Your task to perform on an android device: turn on bluetooth scan Image 0: 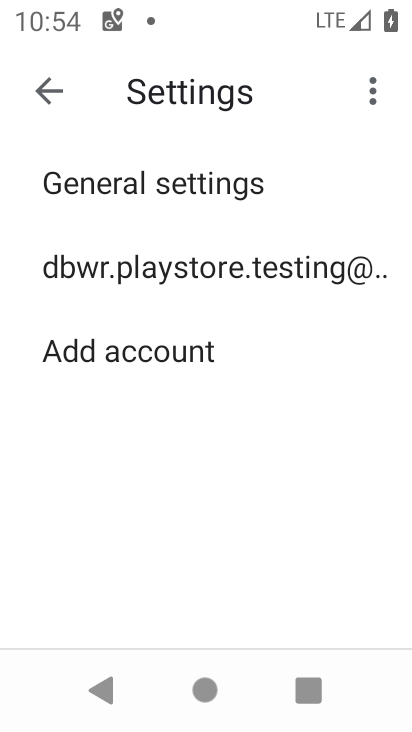
Step 0: press home button
Your task to perform on an android device: turn on bluetooth scan Image 1: 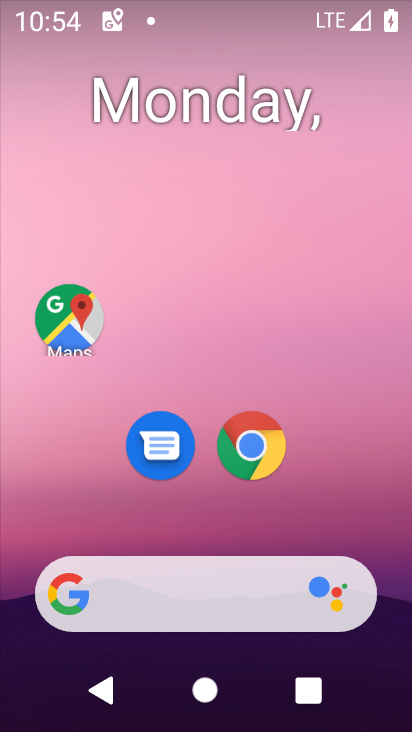
Step 1: drag from (241, 704) to (141, 20)
Your task to perform on an android device: turn on bluetooth scan Image 2: 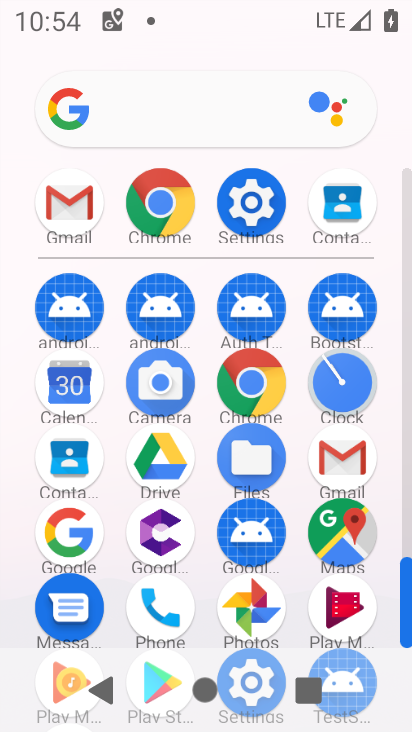
Step 2: click (247, 206)
Your task to perform on an android device: turn on bluetooth scan Image 3: 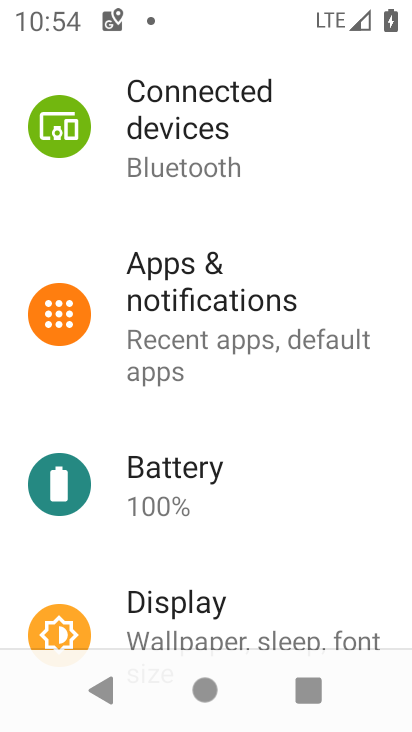
Step 3: drag from (281, 163) to (213, 731)
Your task to perform on an android device: turn on bluetooth scan Image 4: 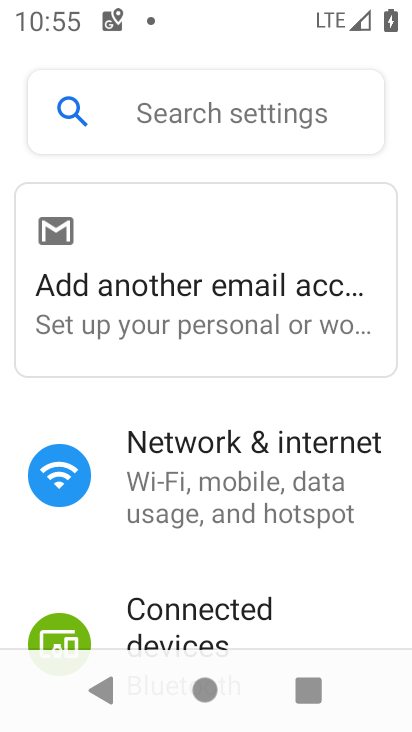
Step 4: drag from (240, 553) to (175, 3)
Your task to perform on an android device: turn on bluetooth scan Image 5: 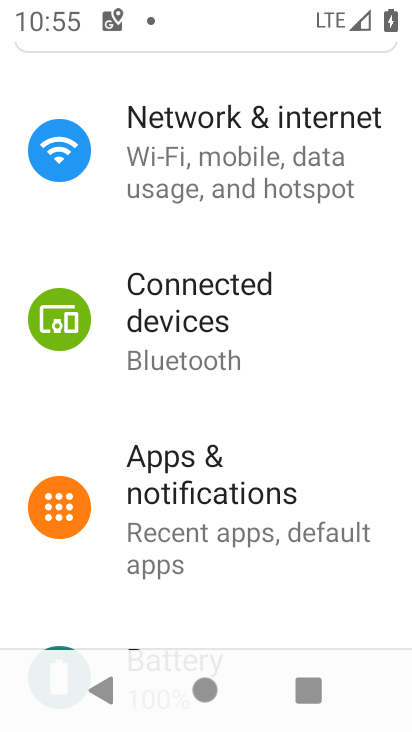
Step 5: drag from (242, 430) to (242, 21)
Your task to perform on an android device: turn on bluetooth scan Image 6: 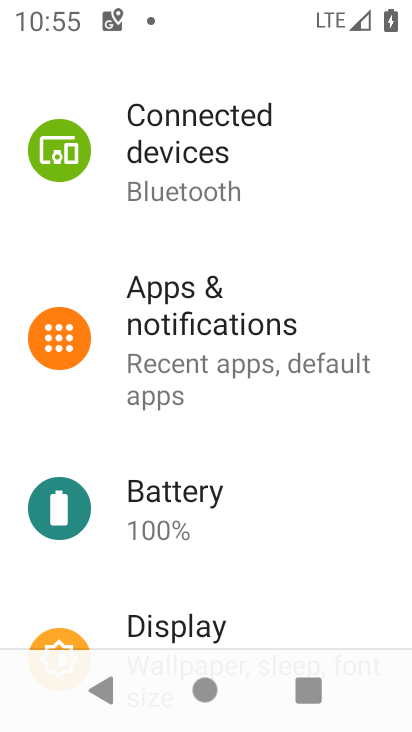
Step 6: drag from (235, 546) to (116, 7)
Your task to perform on an android device: turn on bluetooth scan Image 7: 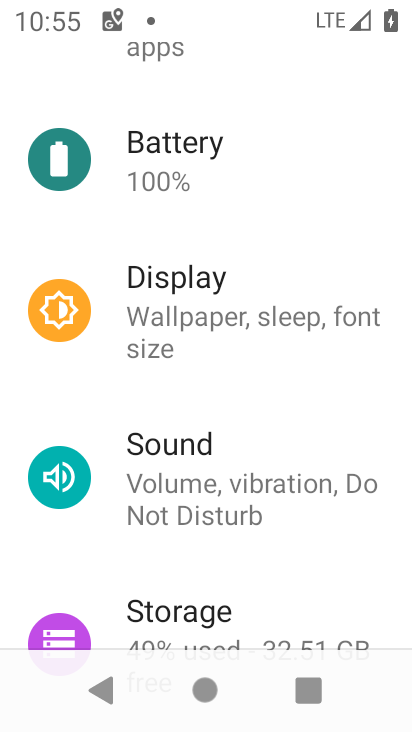
Step 7: drag from (235, 372) to (222, 4)
Your task to perform on an android device: turn on bluetooth scan Image 8: 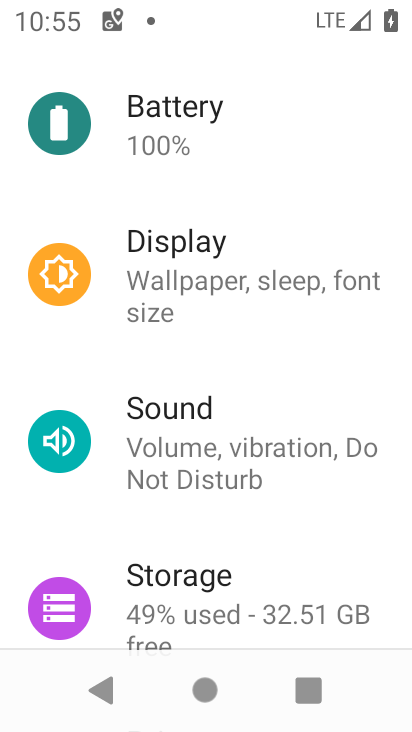
Step 8: drag from (251, 551) to (270, 19)
Your task to perform on an android device: turn on bluetooth scan Image 9: 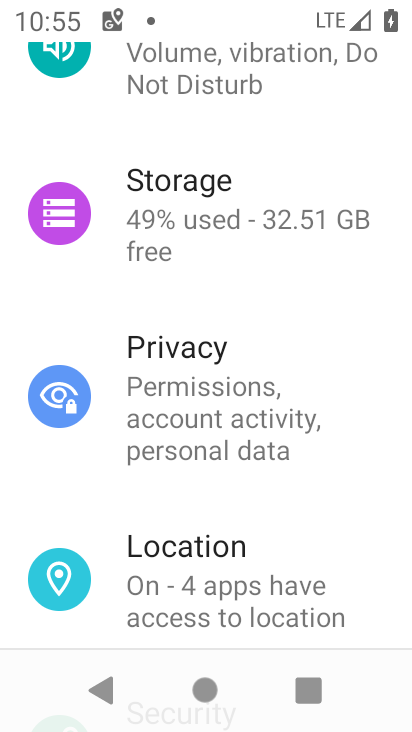
Step 9: click (199, 592)
Your task to perform on an android device: turn on bluetooth scan Image 10: 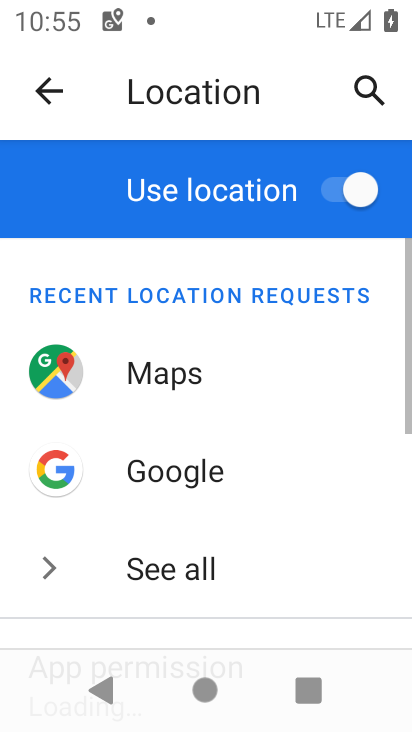
Step 10: drag from (270, 563) to (296, 25)
Your task to perform on an android device: turn on bluetooth scan Image 11: 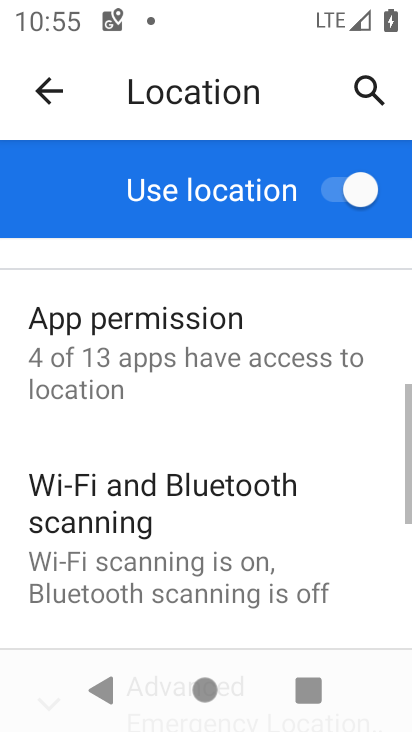
Step 11: click (206, 503)
Your task to perform on an android device: turn on bluetooth scan Image 12: 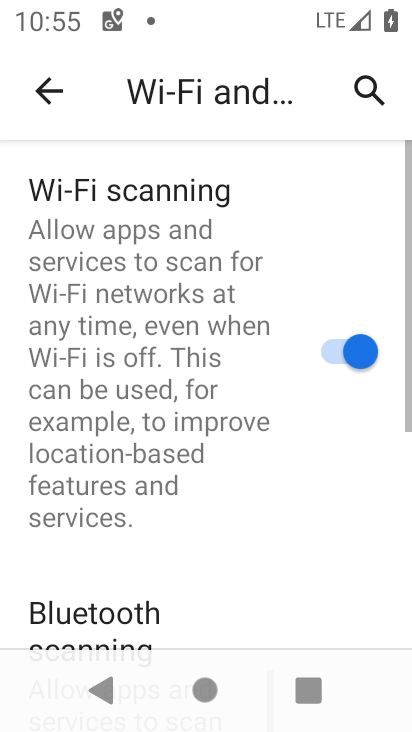
Step 12: drag from (238, 593) to (243, 20)
Your task to perform on an android device: turn on bluetooth scan Image 13: 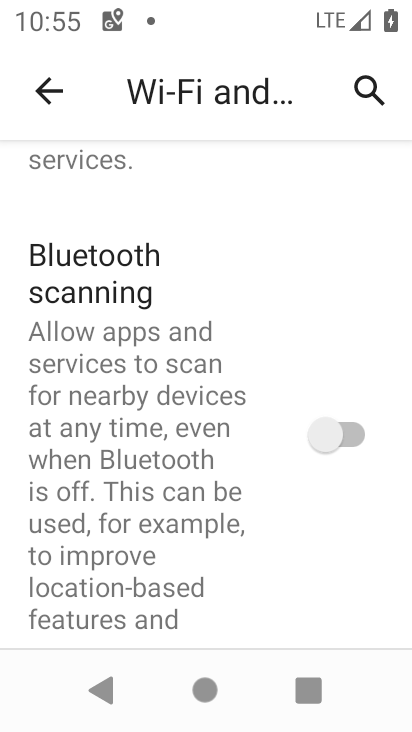
Step 13: click (337, 447)
Your task to perform on an android device: turn on bluetooth scan Image 14: 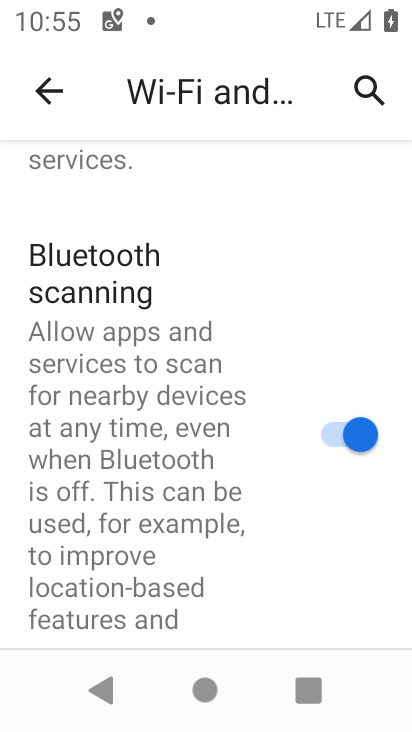
Step 14: task complete